Your task to perform on an android device: How do I get to the nearest Apple Store? Image 0: 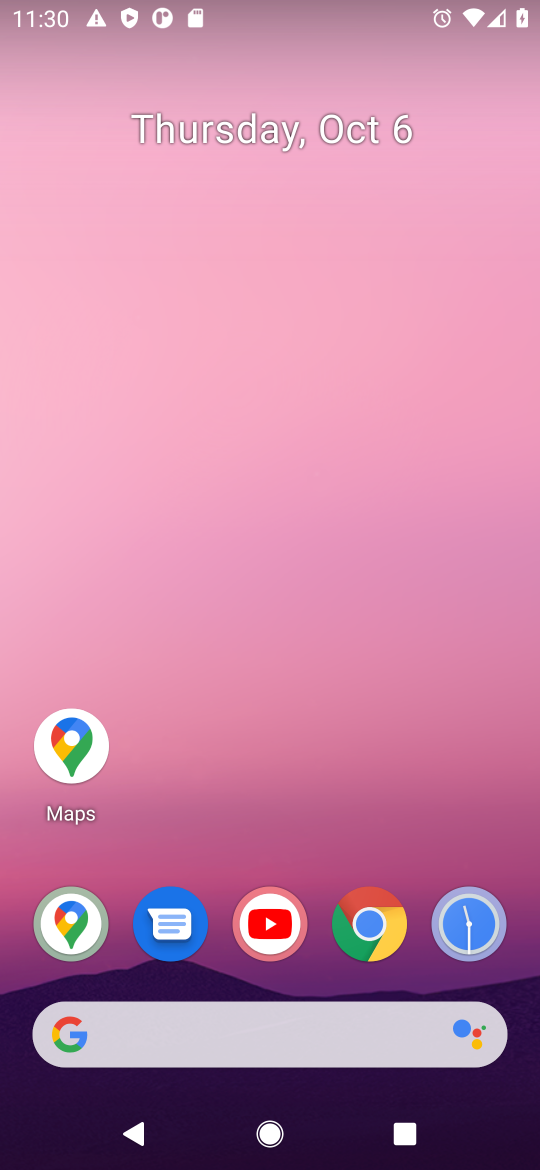
Step 0: click (365, 934)
Your task to perform on an android device: How do I get to the nearest Apple Store? Image 1: 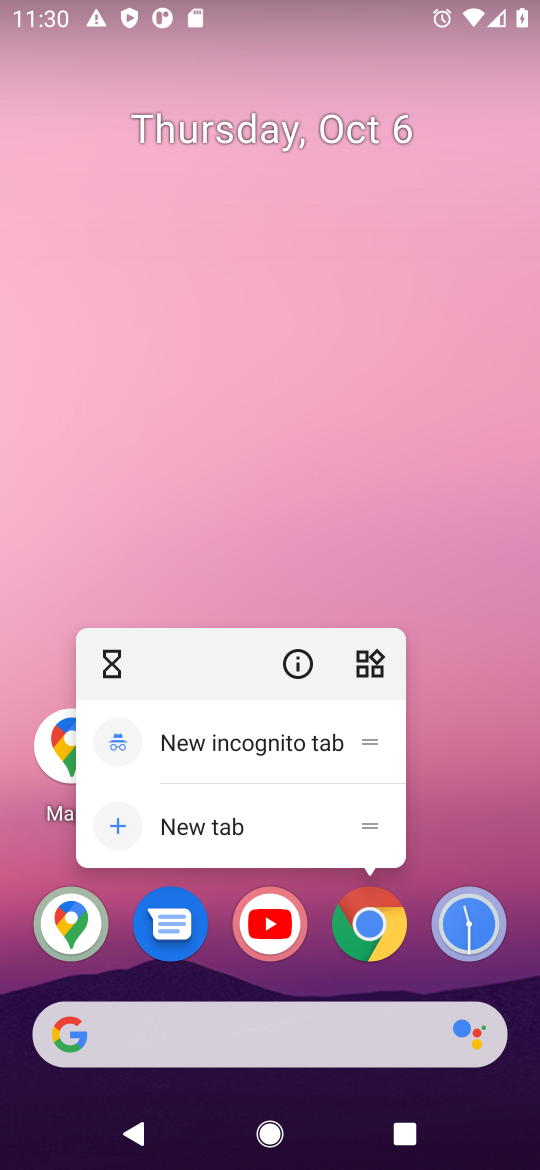
Step 1: click (370, 934)
Your task to perform on an android device: How do I get to the nearest Apple Store? Image 2: 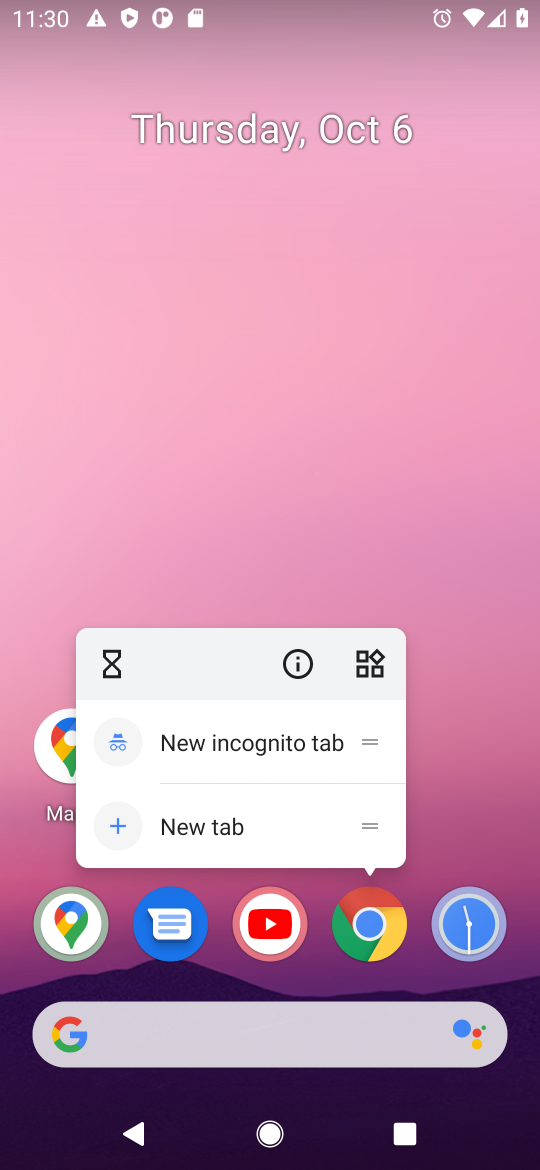
Step 2: click (370, 935)
Your task to perform on an android device: How do I get to the nearest Apple Store? Image 3: 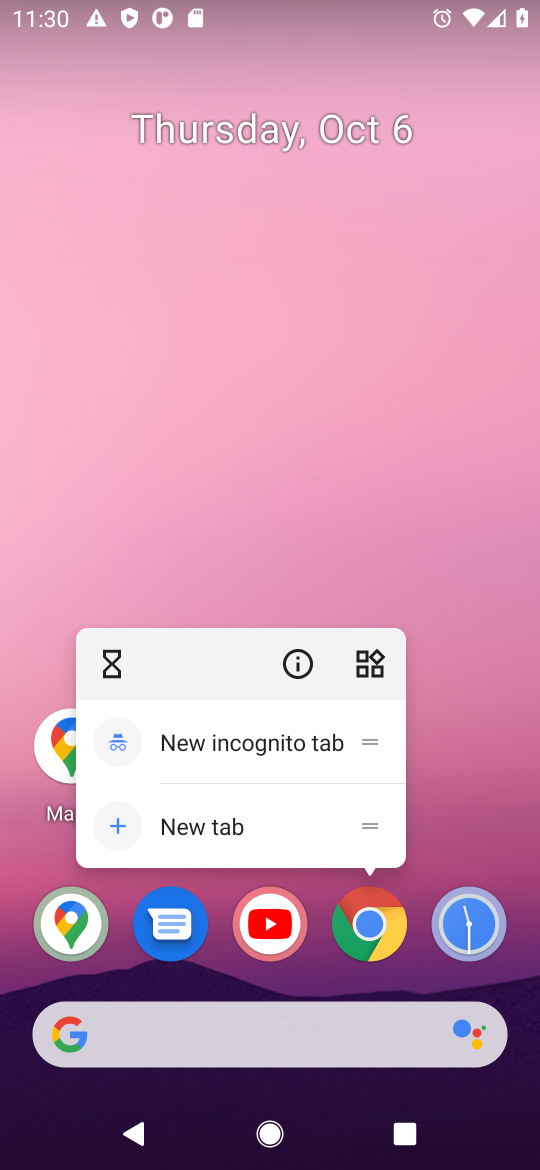
Step 3: click (370, 936)
Your task to perform on an android device: How do I get to the nearest Apple Store? Image 4: 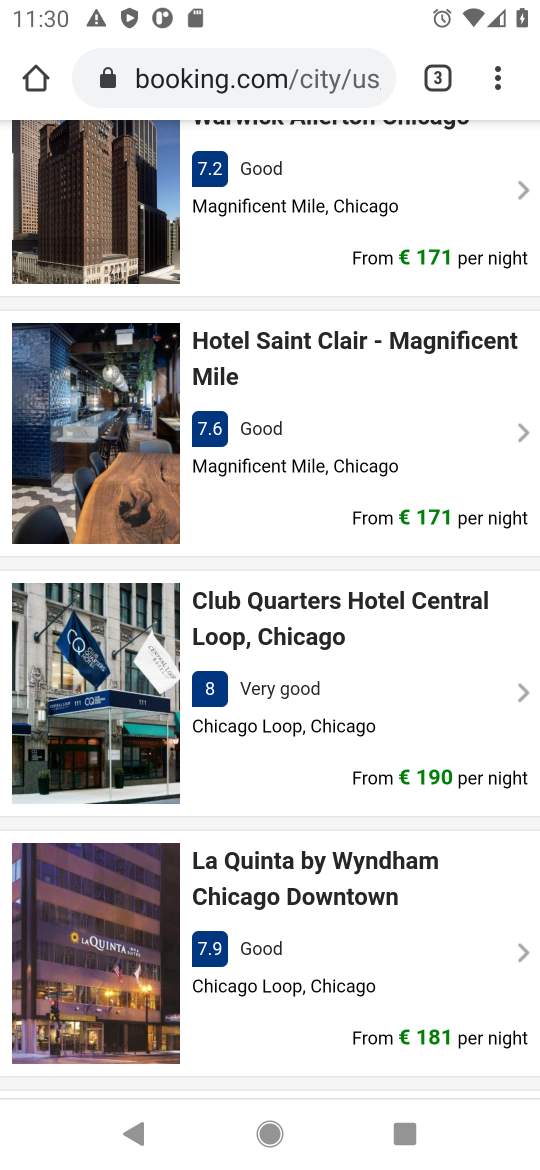
Step 4: click (286, 81)
Your task to perform on an android device: How do I get to the nearest Apple Store? Image 5: 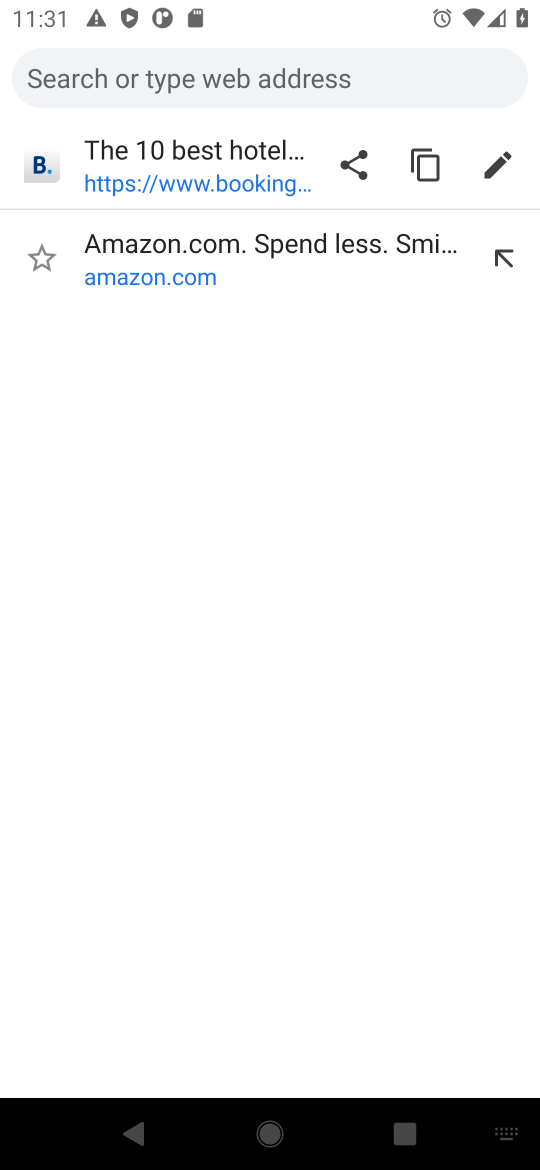
Step 5: type "nearest Apple Store"
Your task to perform on an android device: How do I get to the nearest Apple Store? Image 6: 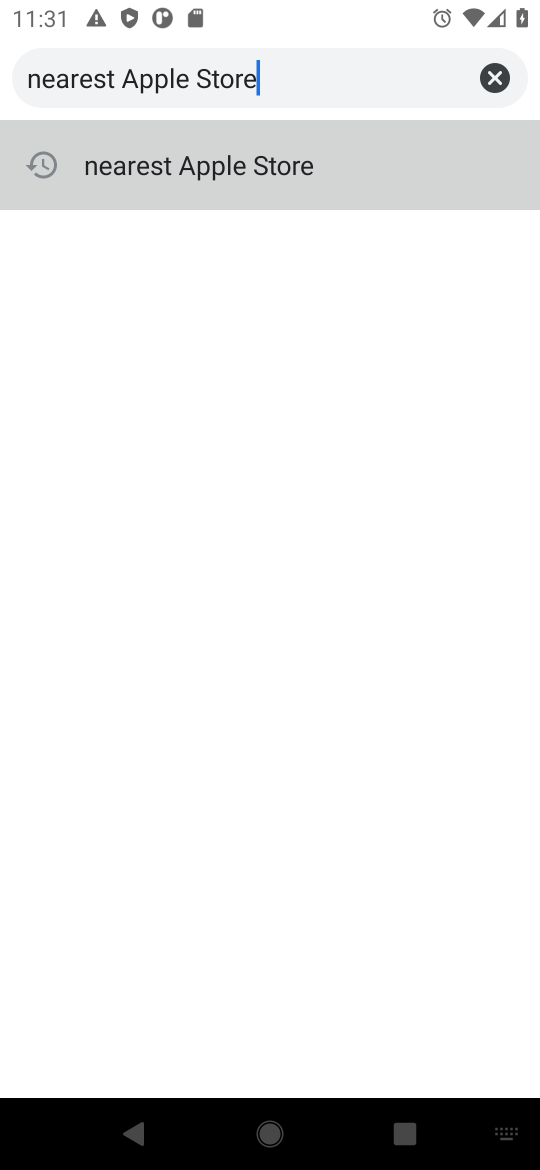
Step 6: type "nearest Apple Store"
Your task to perform on an android device: How do I get to the nearest Apple Store? Image 7: 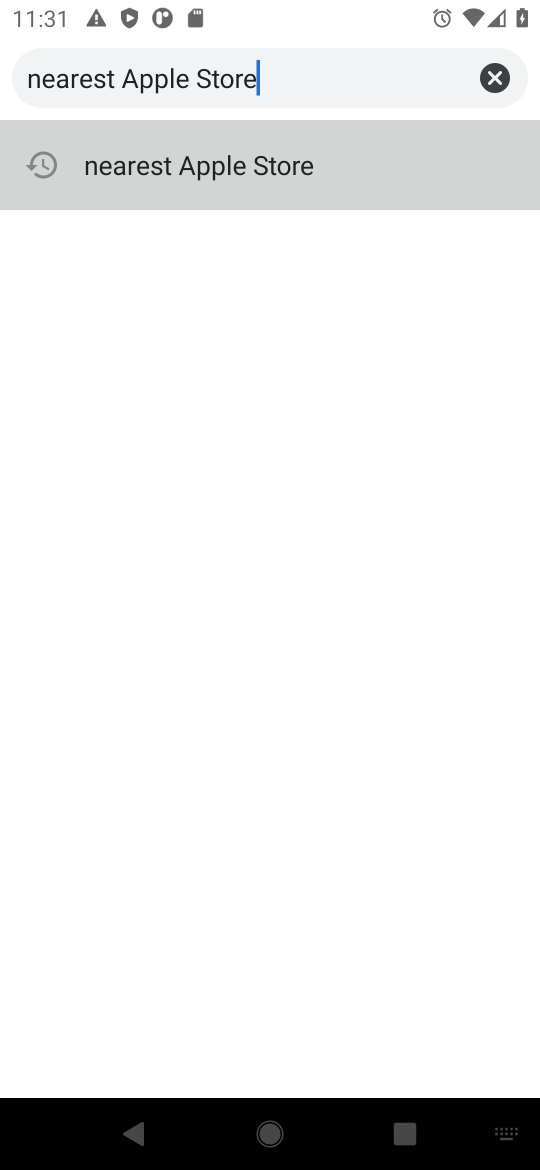
Step 7: click (247, 163)
Your task to perform on an android device: How do I get to the nearest Apple Store? Image 8: 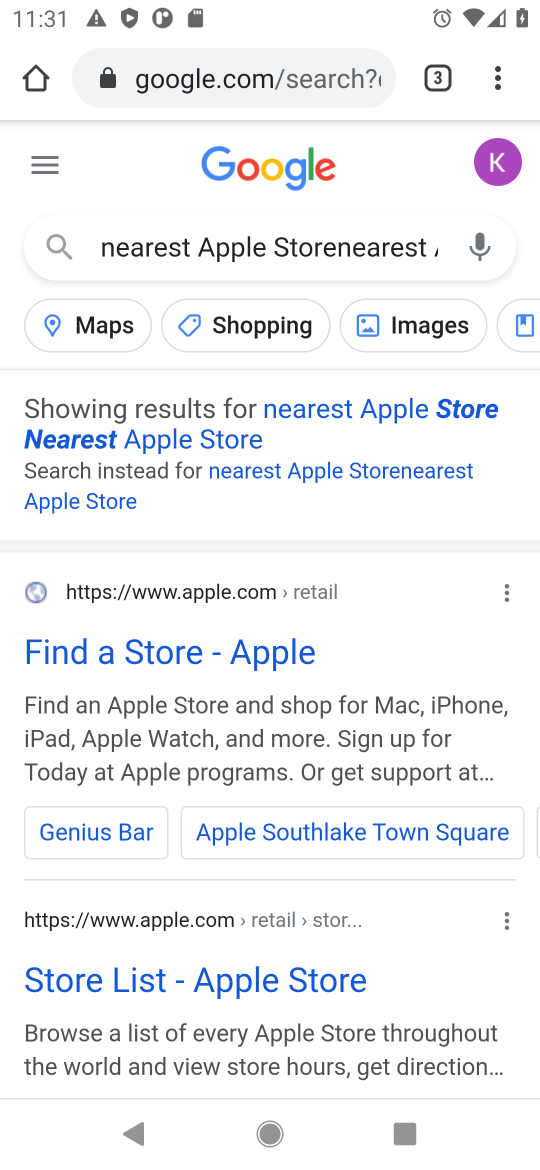
Step 8: drag from (150, 921) to (377, 390)
Your task to perform on an android device: How do I get to the nearest Apple Store? Image 9: 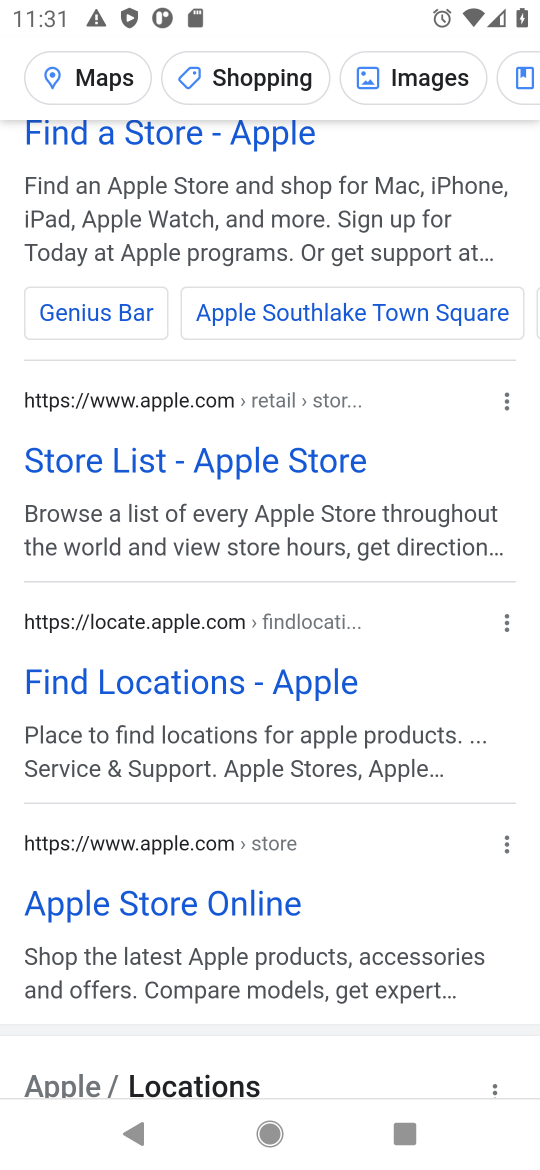
Step 9: click (173, 134)
Your task to perform on an android device: How do I get to the nearest Apple Store? Image 10: 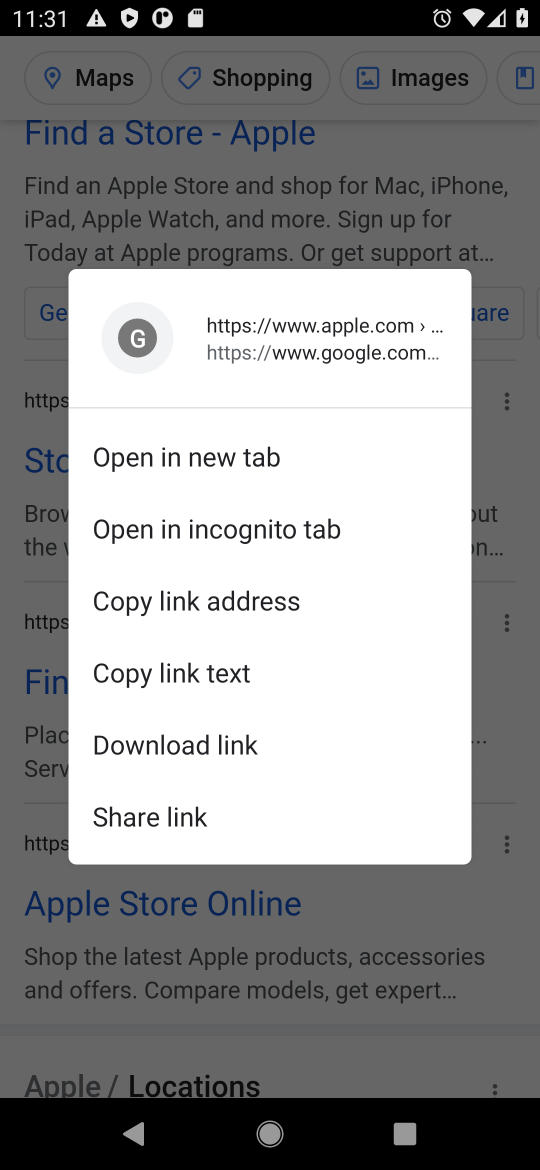
Step 10: click (470, 977)
Your task to perform on an android device: How do I get to the nearest Apple Store? Image 11: 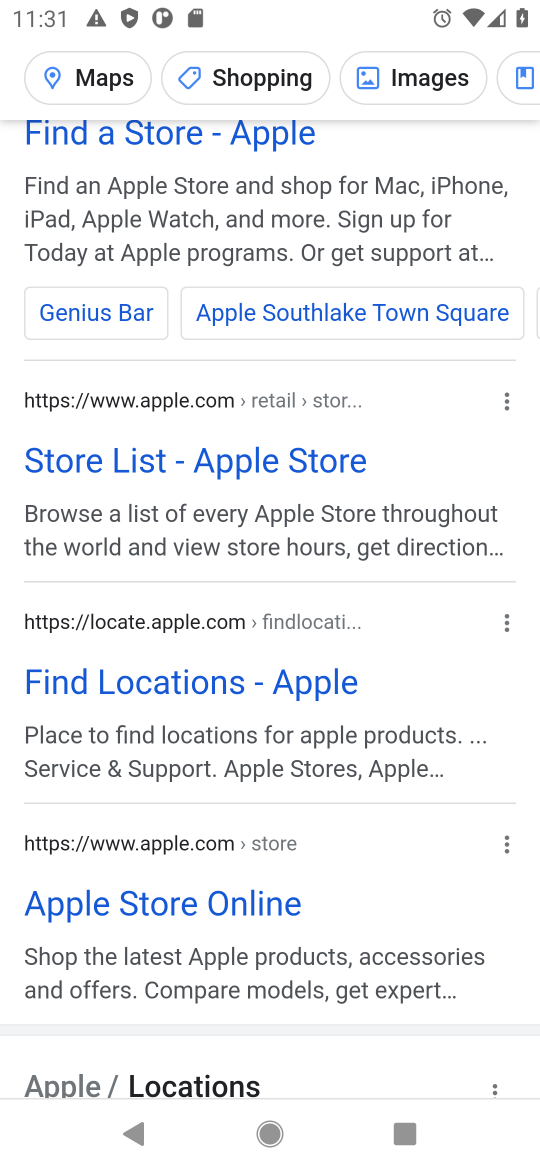
Step 11: click (149, 461)
Your task to perform on an android device: How do I get to the nearest Apple Store? Image 12: 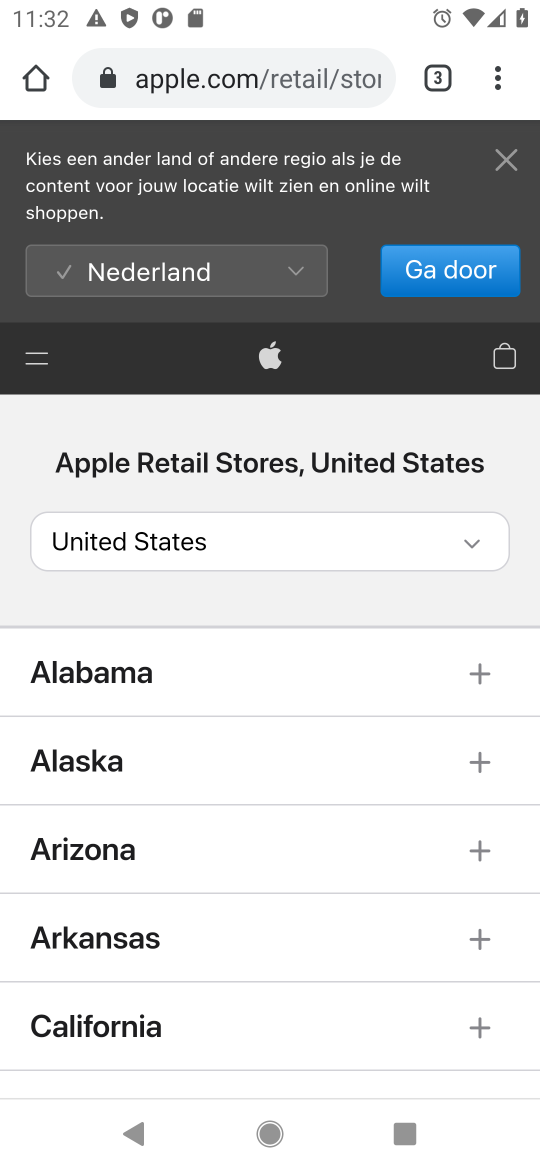
Step 12: task complete